Your task to perform on an android device: Open Chrome and go to settings Image 0: 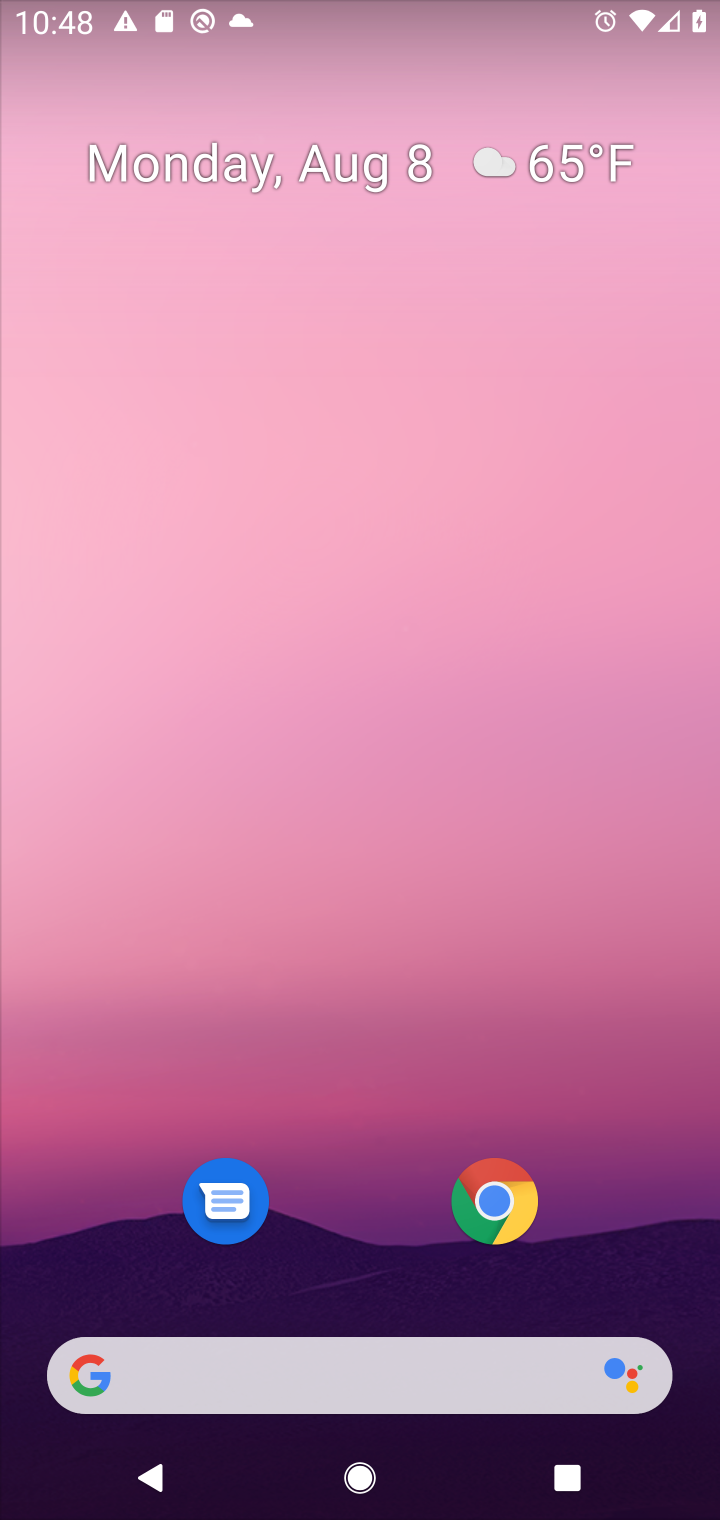
Step 0: press home button
Your task to perform on an android device: Open Chrome and go to settings Image 1: 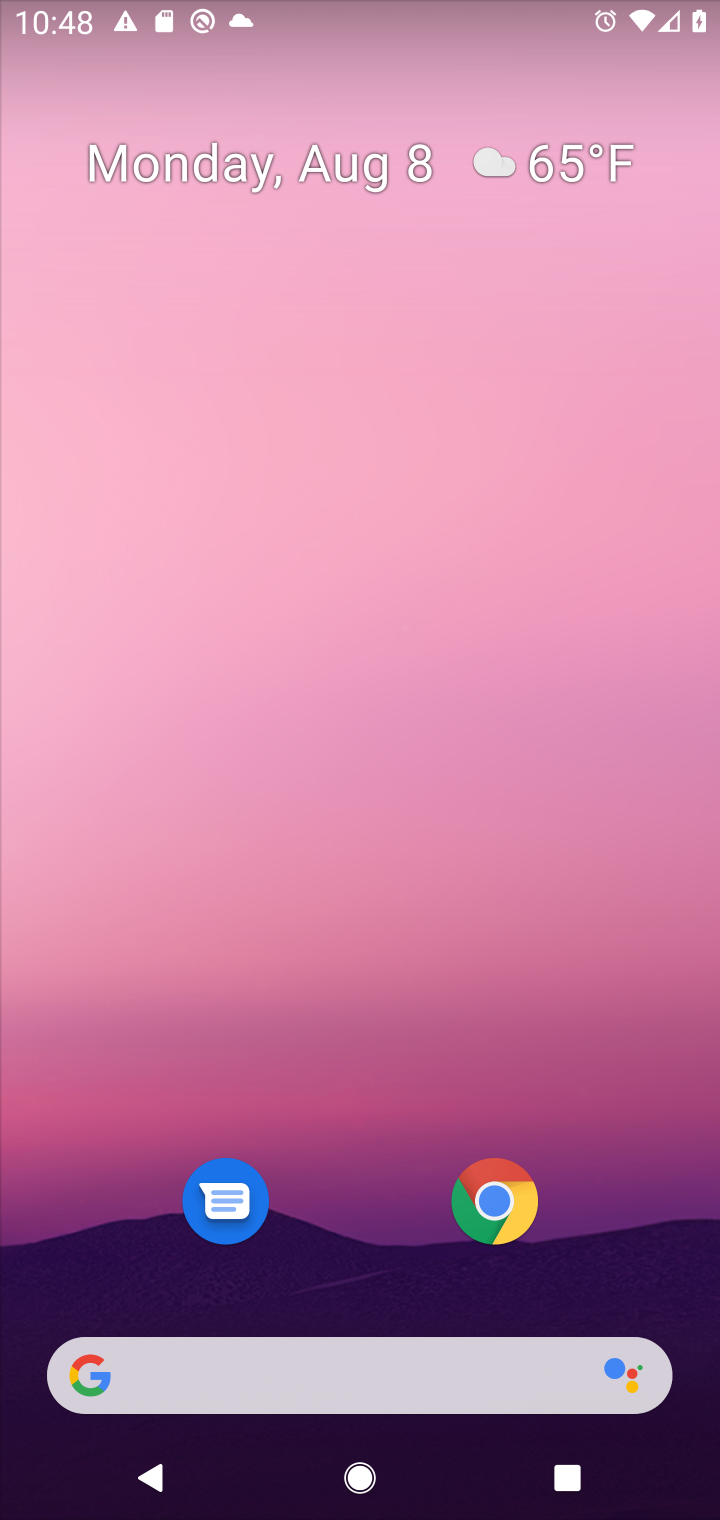
Step 1: drag from (632, 987) to (642, 180)
Your task to perform on an android device: Open Chrome and go to settings Image 2: 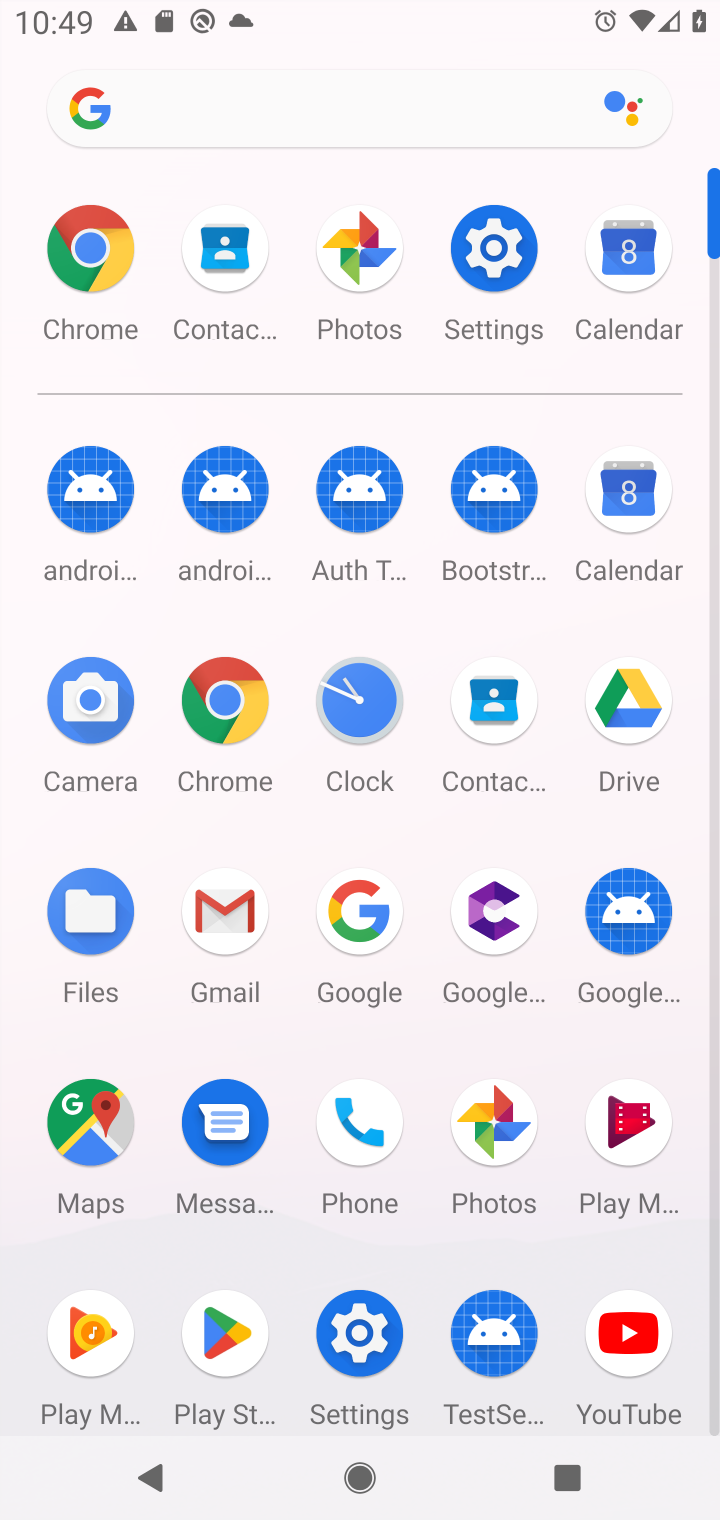
Step 2: click (225, 702)
Your task to perform on an android device: Open Chrome and go to settings Image 3: 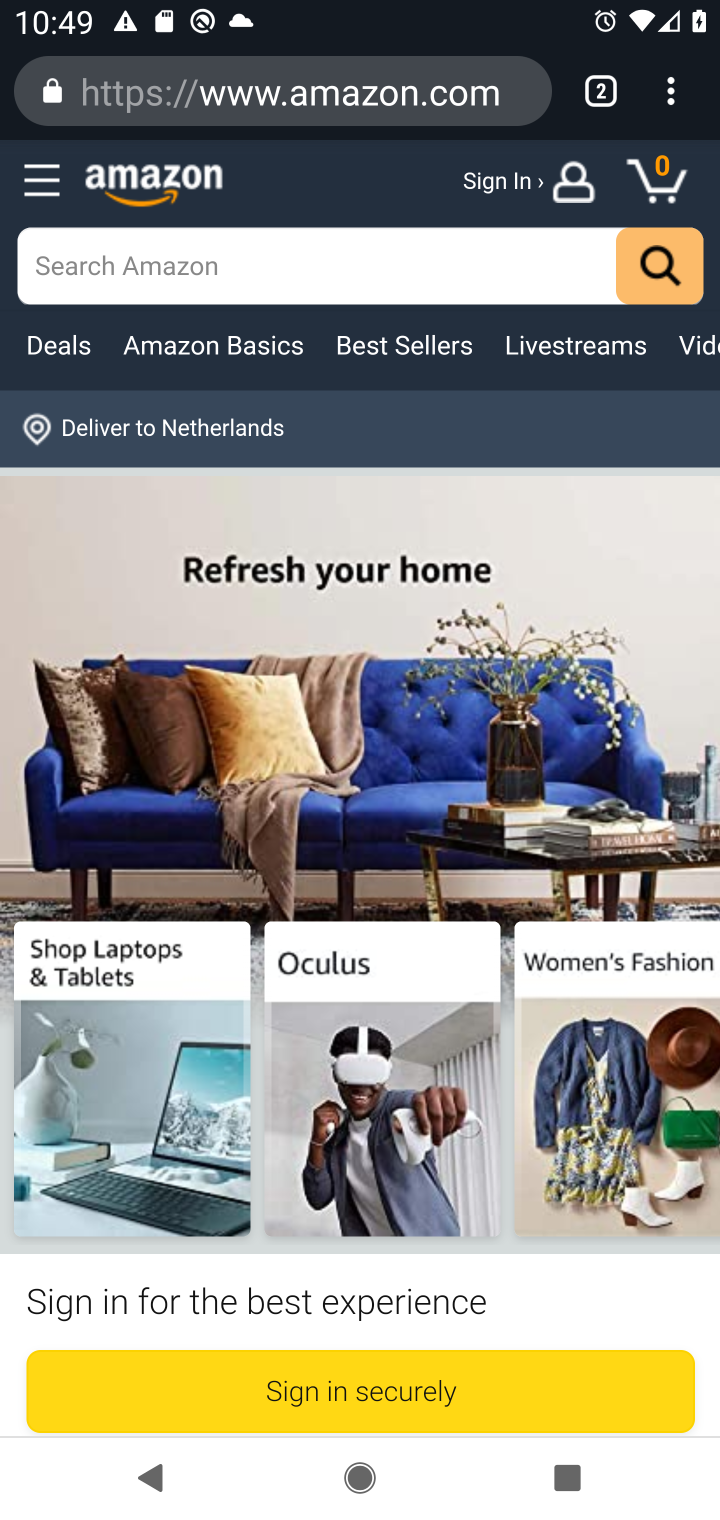
Step 3: click (668, 102)
Your task to perform on an android device: Open Chrome and go to settings Image 4: 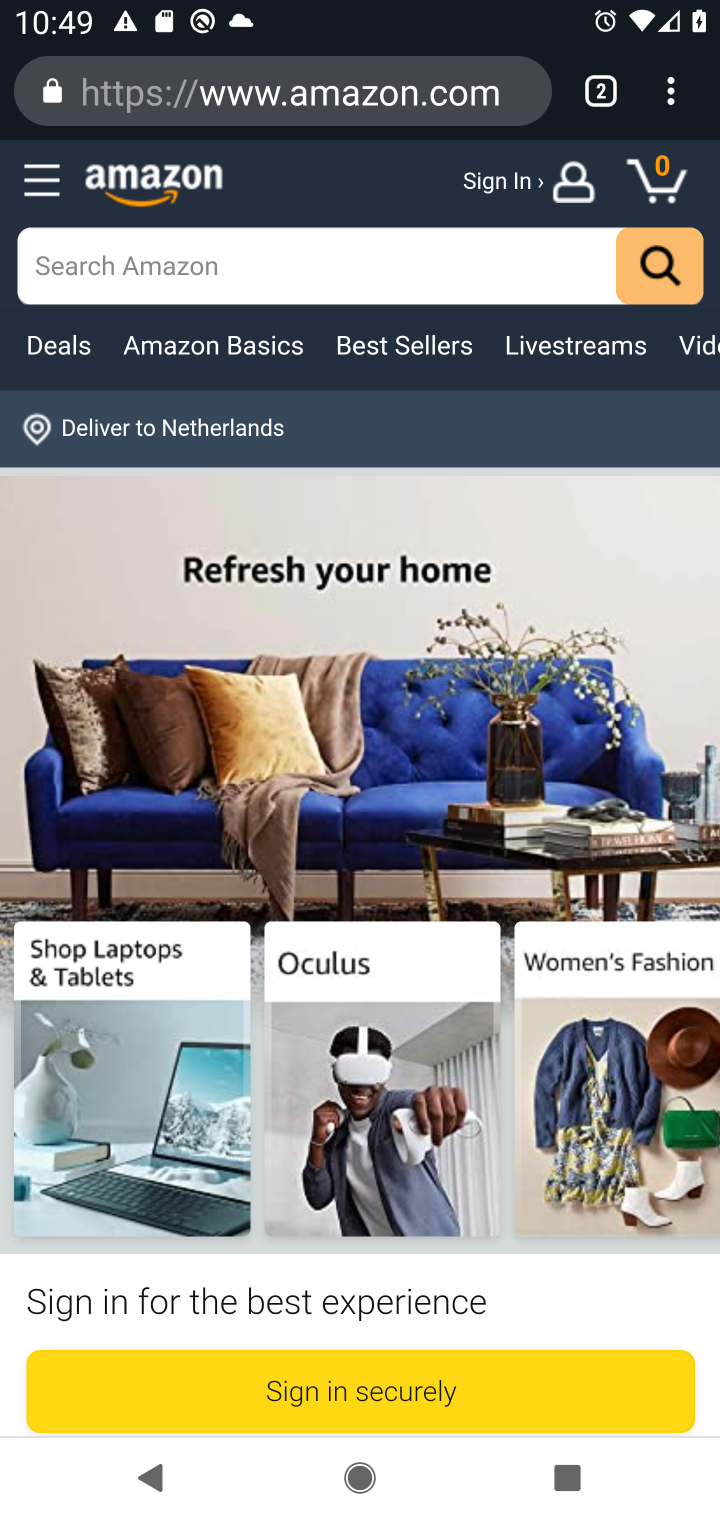
Step 4: click (674, 88)
Your task to perform on an android device: Open Chrome and go to settings Image 5: 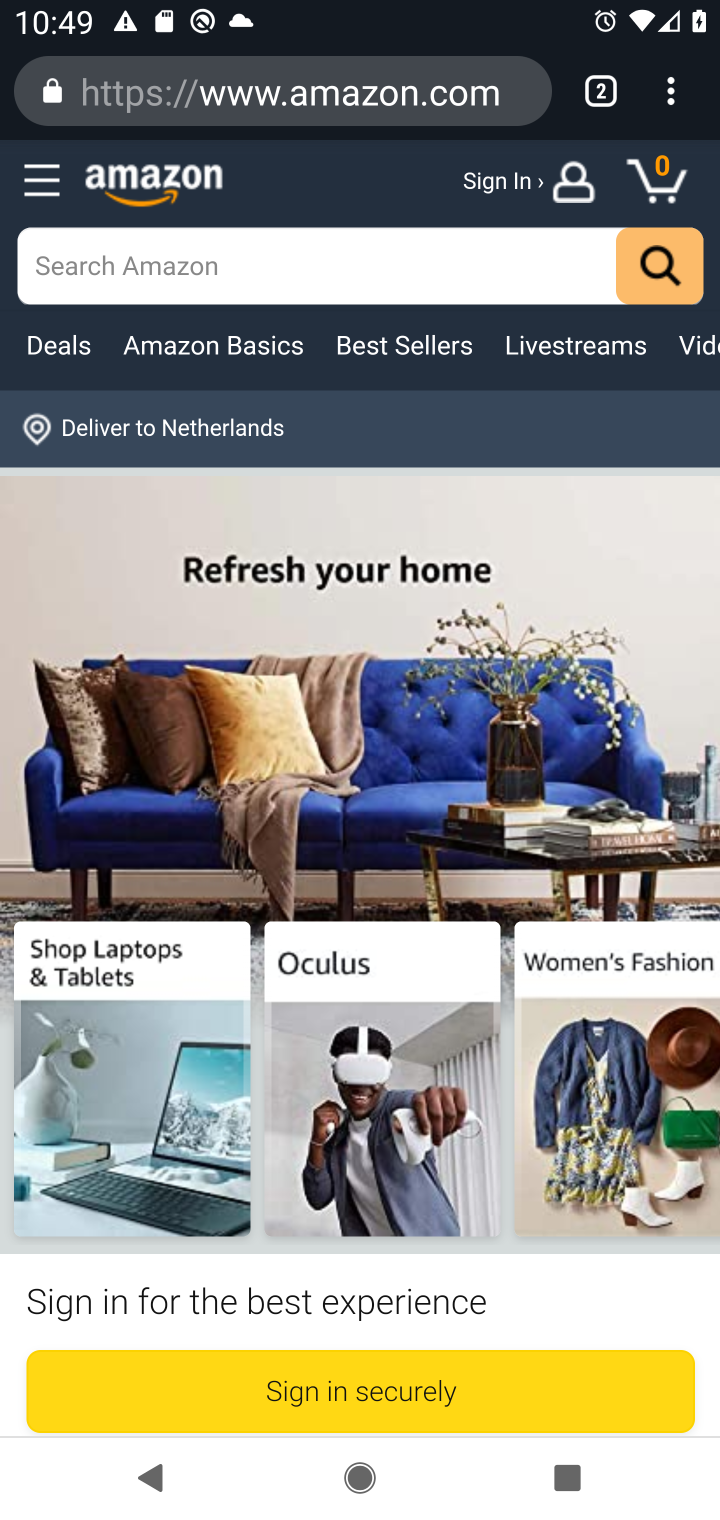
Step 5: click (677, 97)
Your task to perform on an android device: Open Chrome and go to settings Image 6: 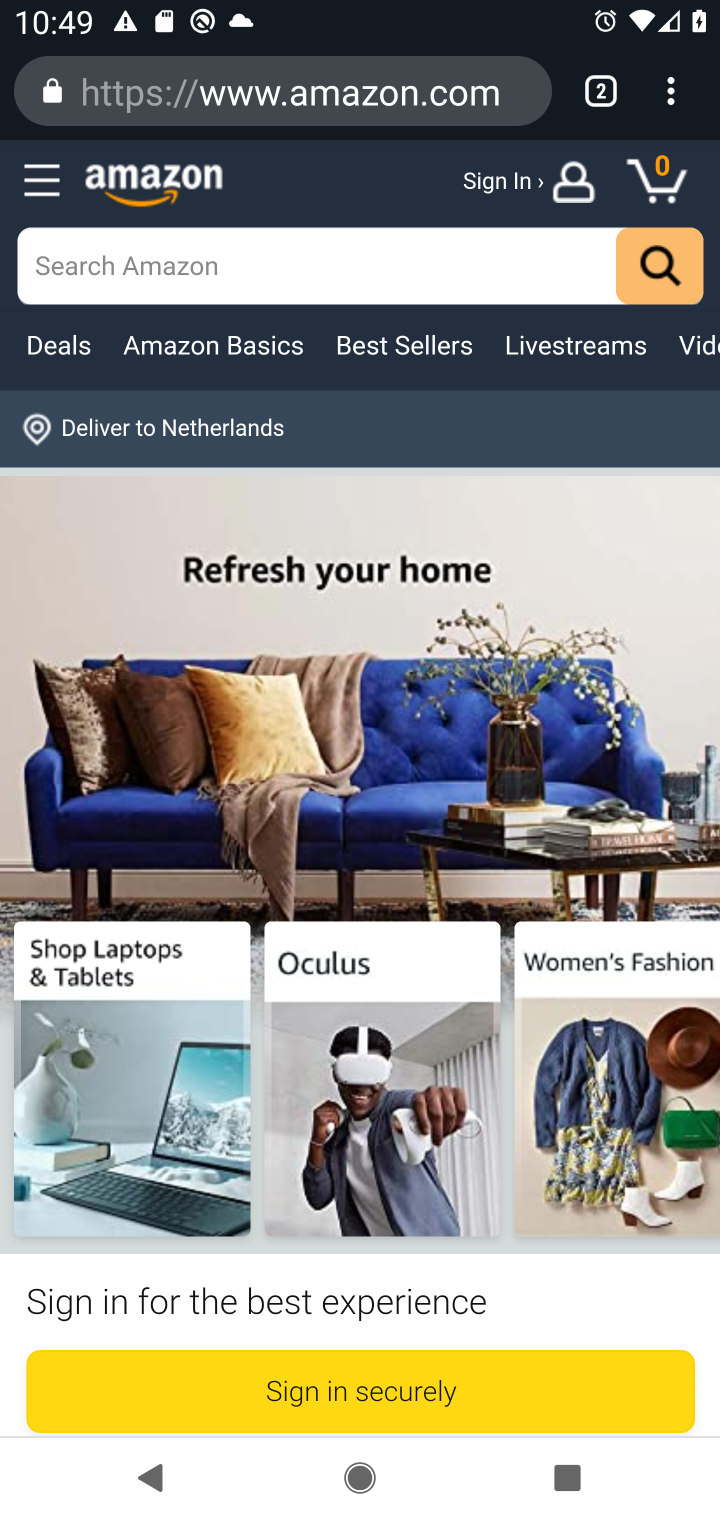
Step 6: click (672, 91)
Your task to perform on an android device: Open Chrome and go to settings Image 7: 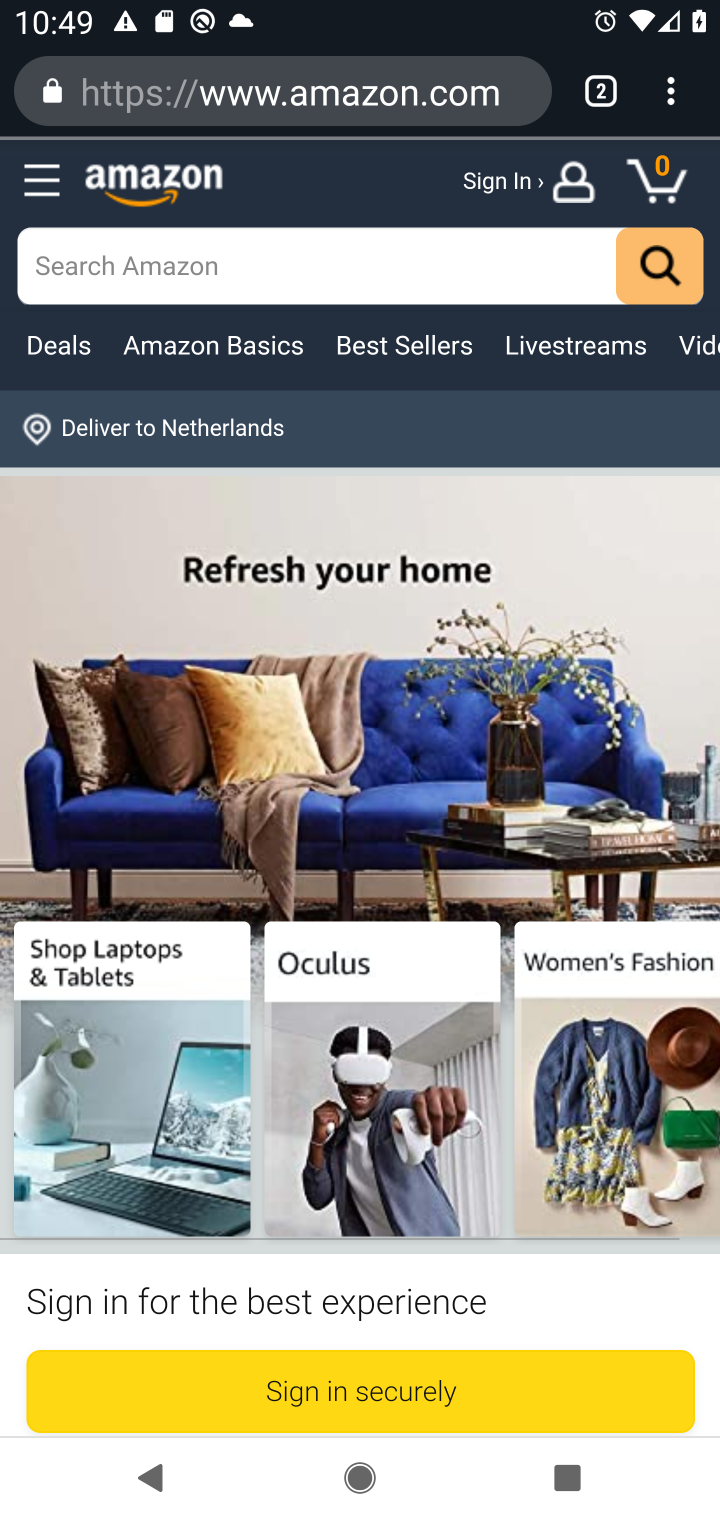
Step 7: click (672, 88)
Your task to perform on an android device: Open Chrome and go to settings Image 8: 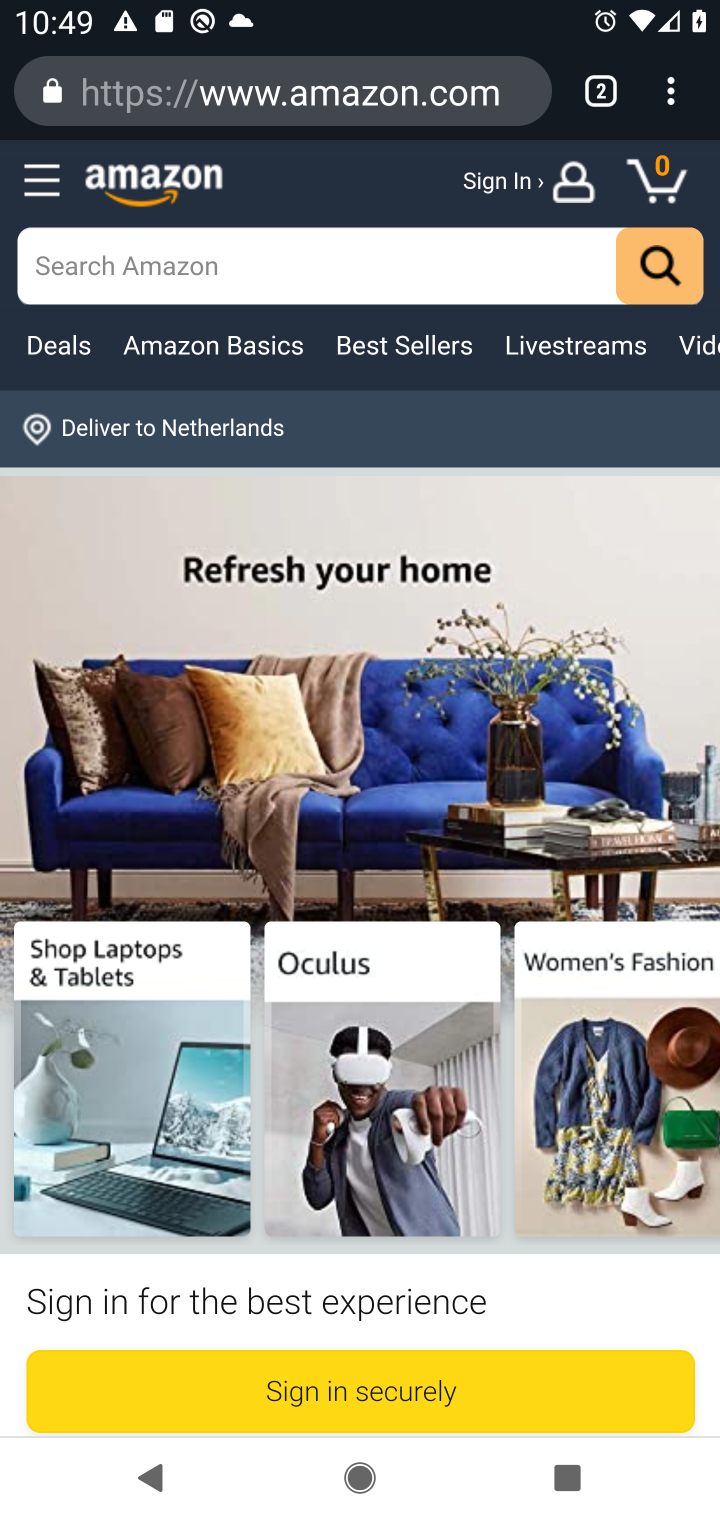
Step 8: click (673, 93)
Your task to perform on an android device: Open Chrome and go to settings Image 9: 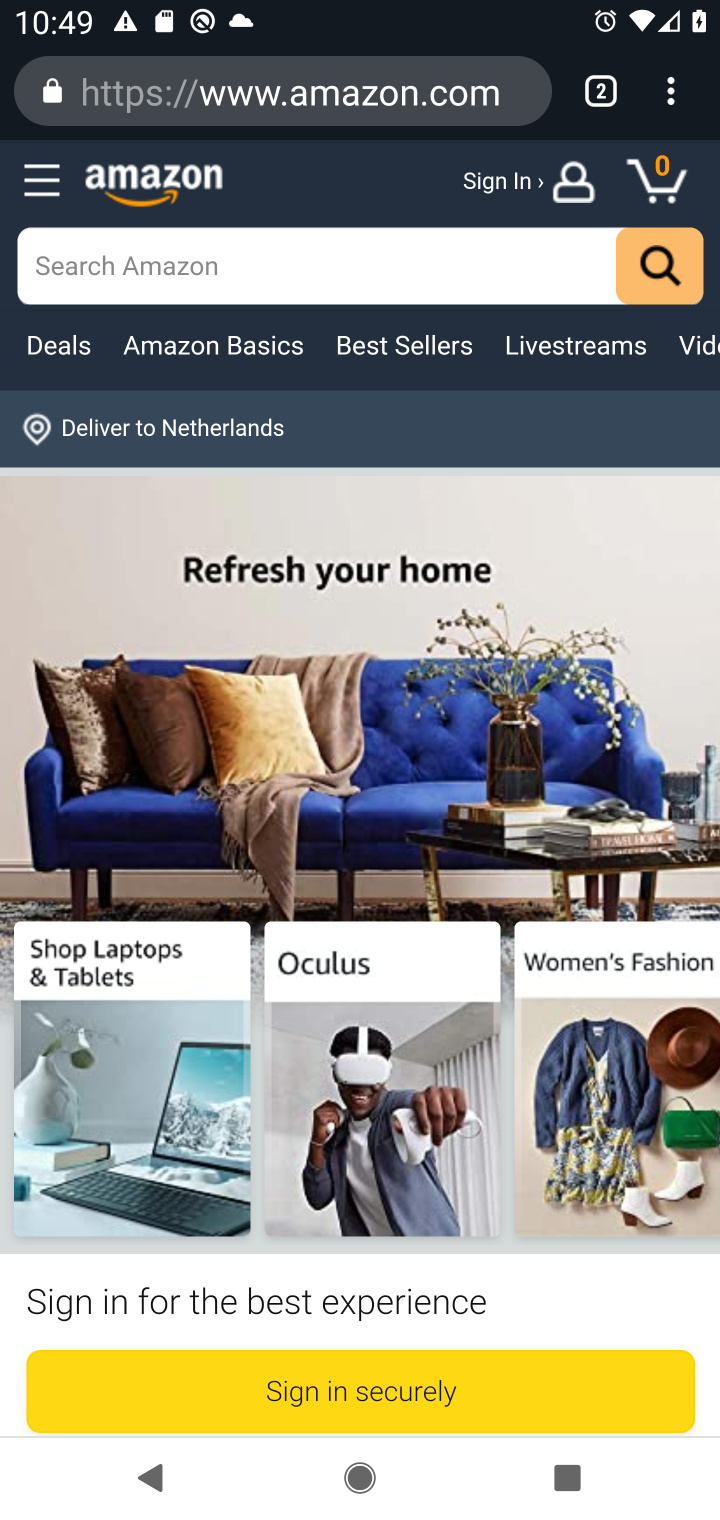
Step 9: task complete